Your task to perform on an android device: Go to Amazon Image 0: 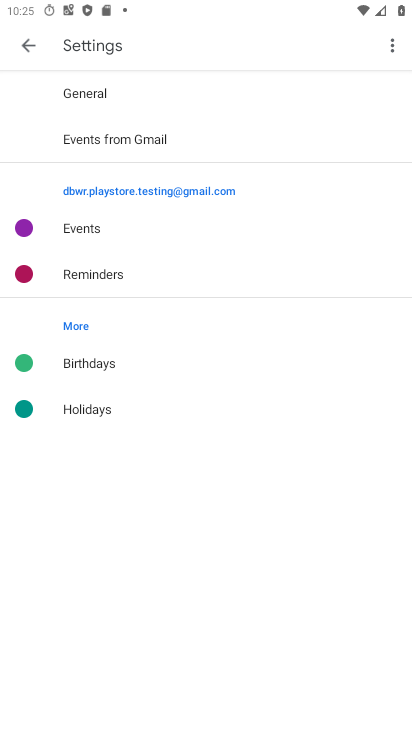
Step 0: press home button
Your task to perform on an android device: Go to Amazon Image 1: 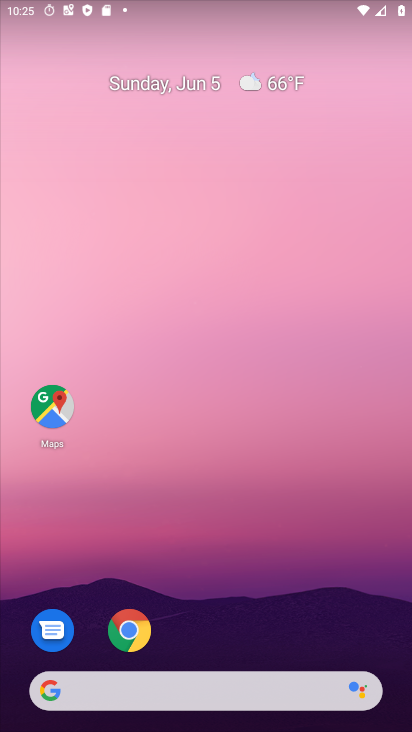
Step 1: click (132, 632)
Your task to perform on an android device: Go to Amazon Image 2: 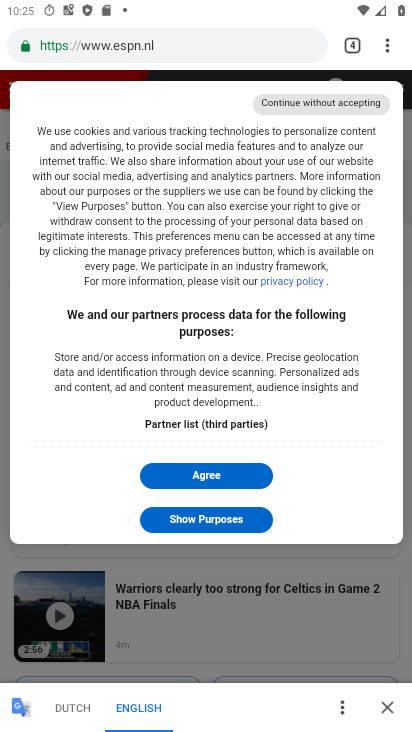
Step 2: click (389, 49)
Your task to perform on an android device: Go to Amazon Image 3: 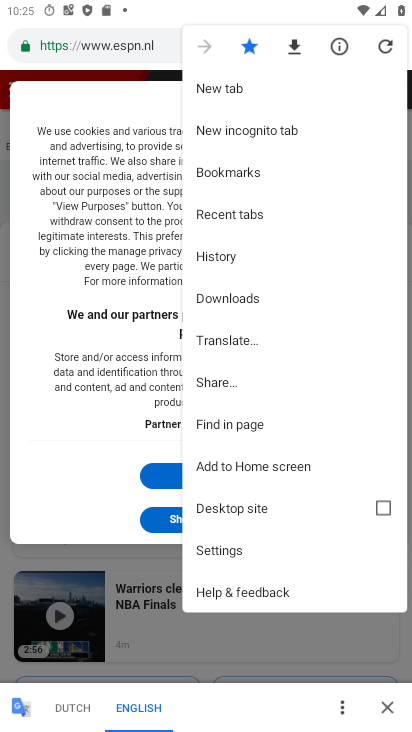
Step 3: click (205, 87)
Your task to perform on an android device: Go to Amazon Image 4: 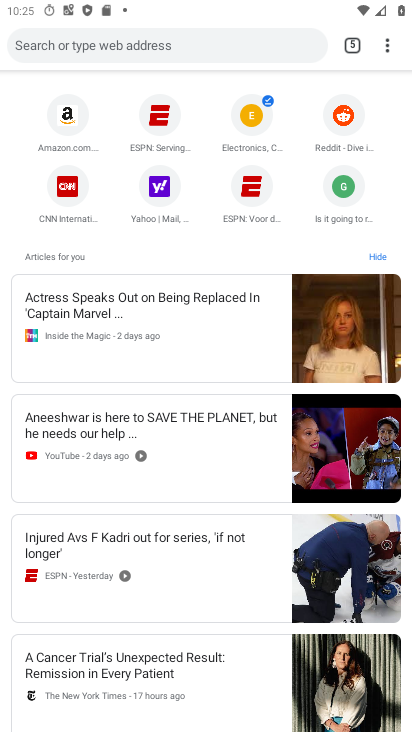
Step 4: click (68, 111)
Your task to perform on an android device: Go to Amazon Image 5: 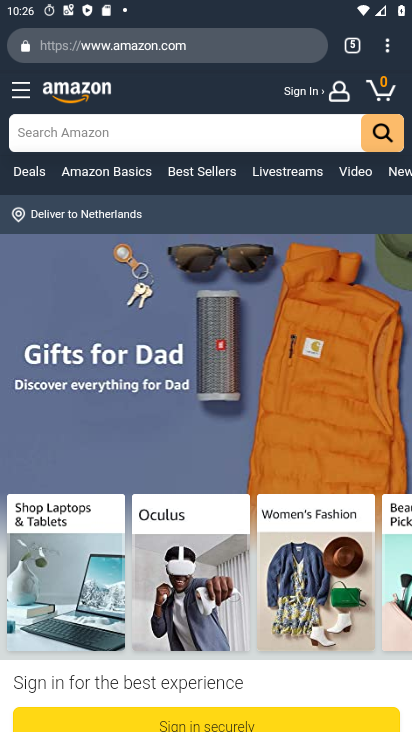
Step 5: task complete